Your task to perform on an android device: View the shopping cart on target.com. Search for razer thresher on target.com, select the first entry, and add it to the cart. Image 0: 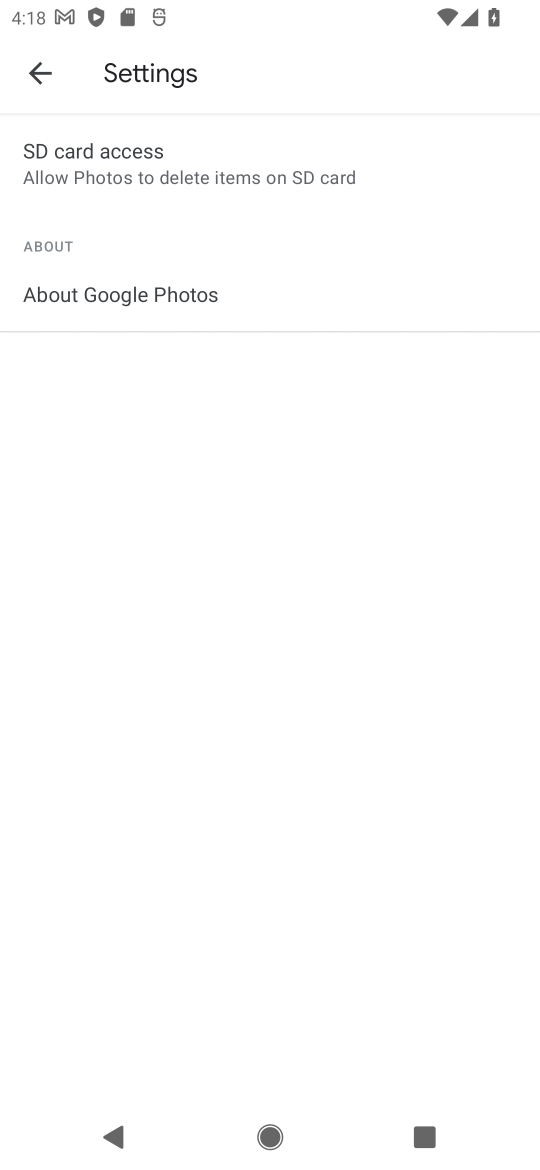
Step 0: press home button
Your task to perform on an android device: View the shopping cart on target.com. Search for razer thresher on target.com, select the first entry, and add it to the cart. Image 1: 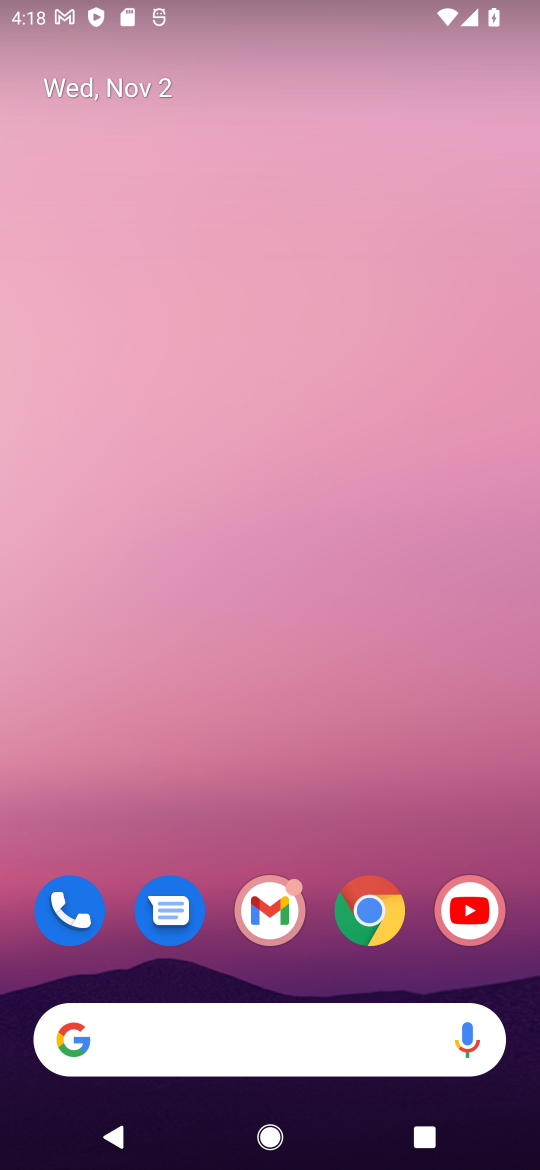
Step 1: click (348, 905)
Your task to perform on an android device: View the shopping cart on target.com. Search for razer thresher on target.com, select the first entry, and add it to the cart. Image 2: 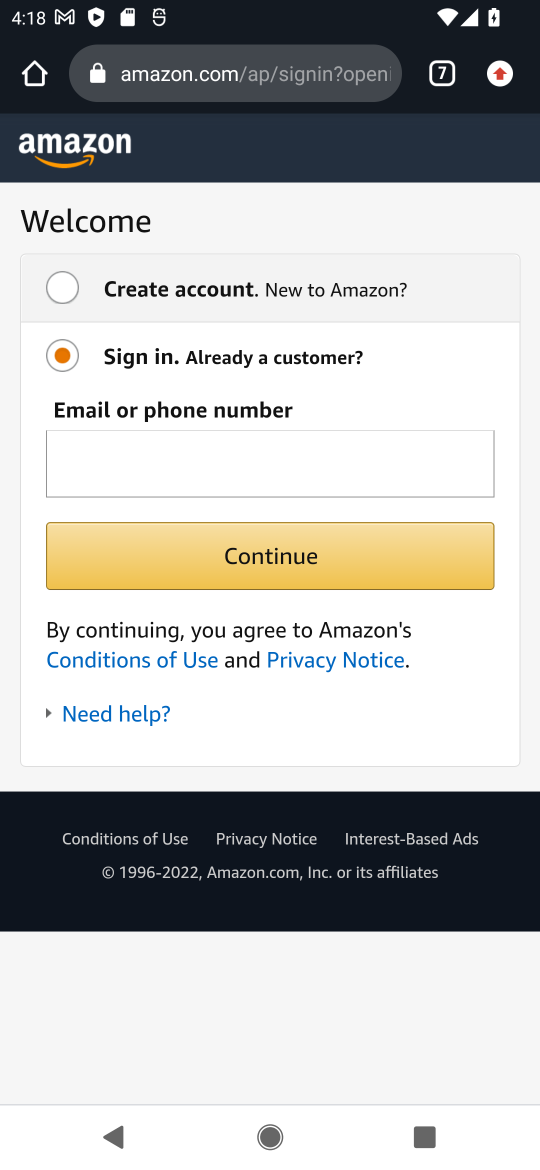
Step 2: click (446, 82)
Your task to perform on an android device: View the shopping cart on target.com. Search for razer thresher on target.com, select the first entry, and add it to the cart. Image 3: 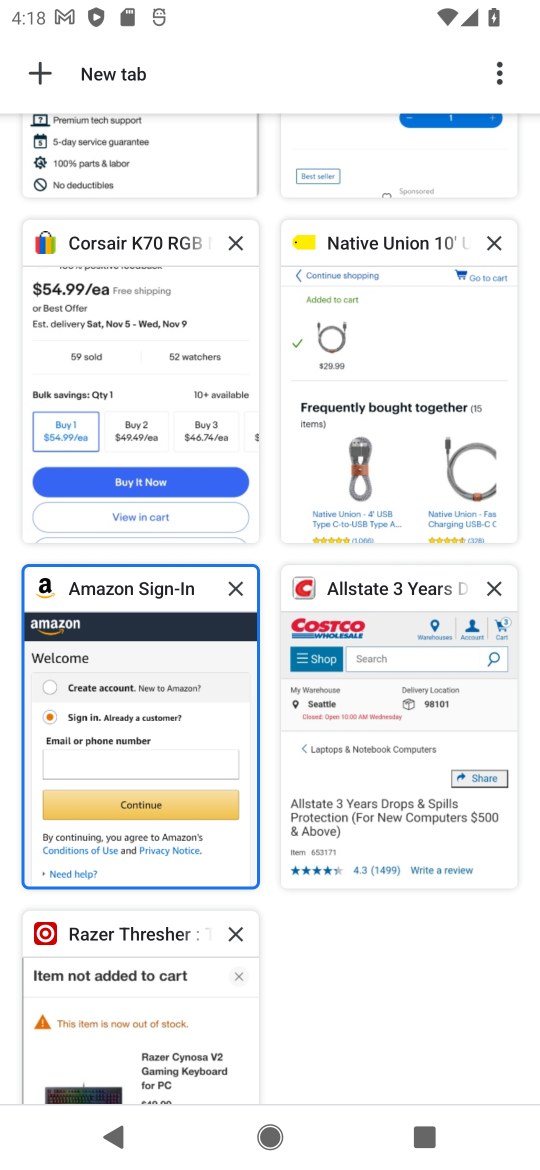
Step 3: click (130, 966)
Your task to perform on an android device: View the shopping cart on target.com. Search for razer thresher on target.com, select the first entry, and add it to the cart. Image 4: 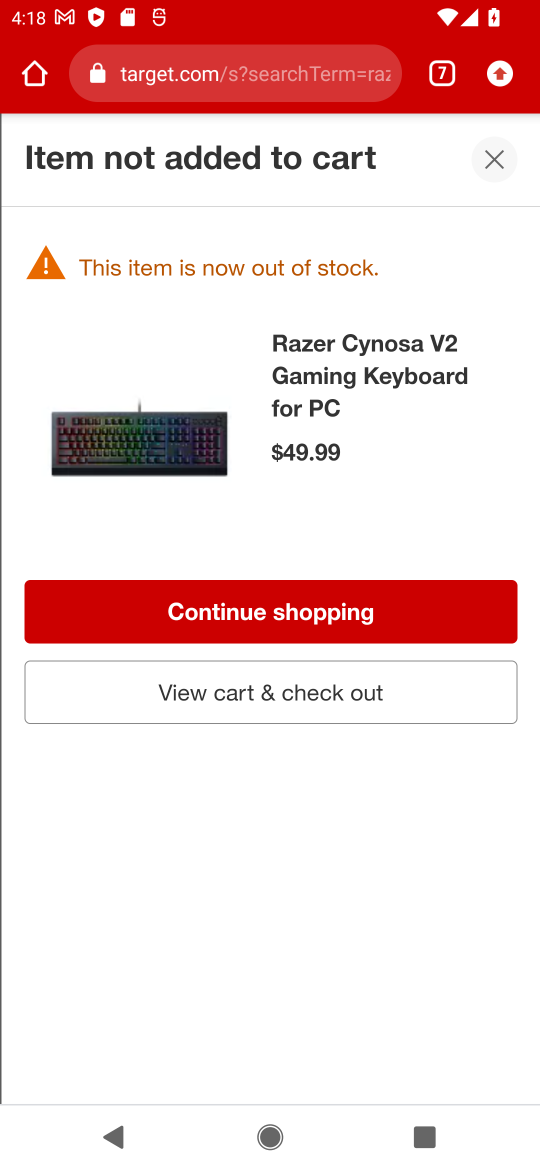
Step 4: click (492, 157)
Your task to perform on an android device: View the shopping cart on target.com. Search for razer thresher on target.com, select the first entry, and add it to the cart. Image 5: 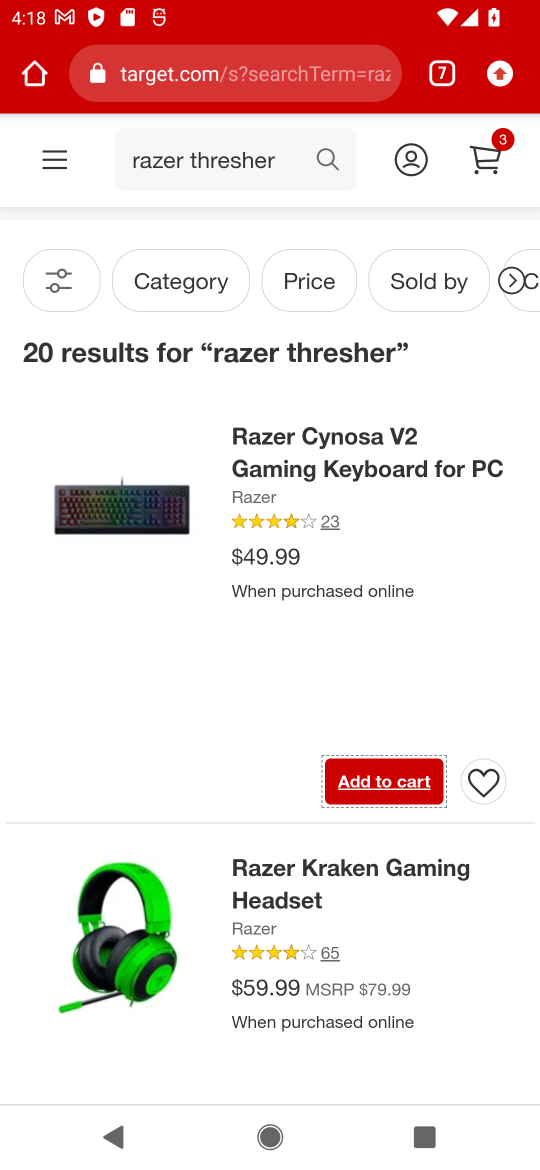
Step 5: click (376, 778)
Your task to perform on an android device: View the shopping cart on target.com. Search for razer thresher on target.com, select the first entry, and add it to the cart. Image 6: 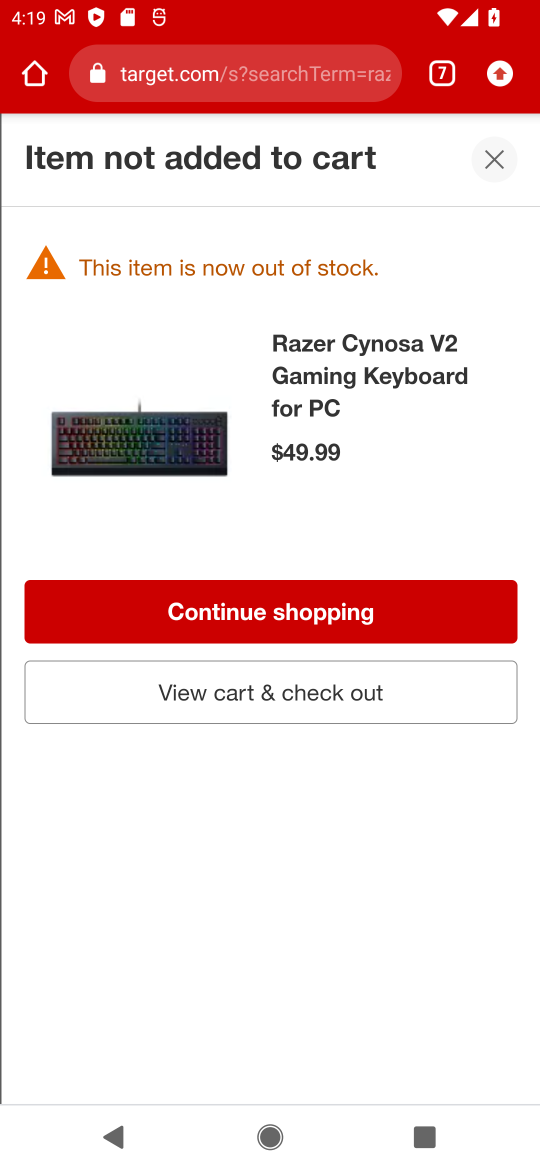
Step 6: task complete